Your task to perform on an android device: find photos in the google photos app Image 0: 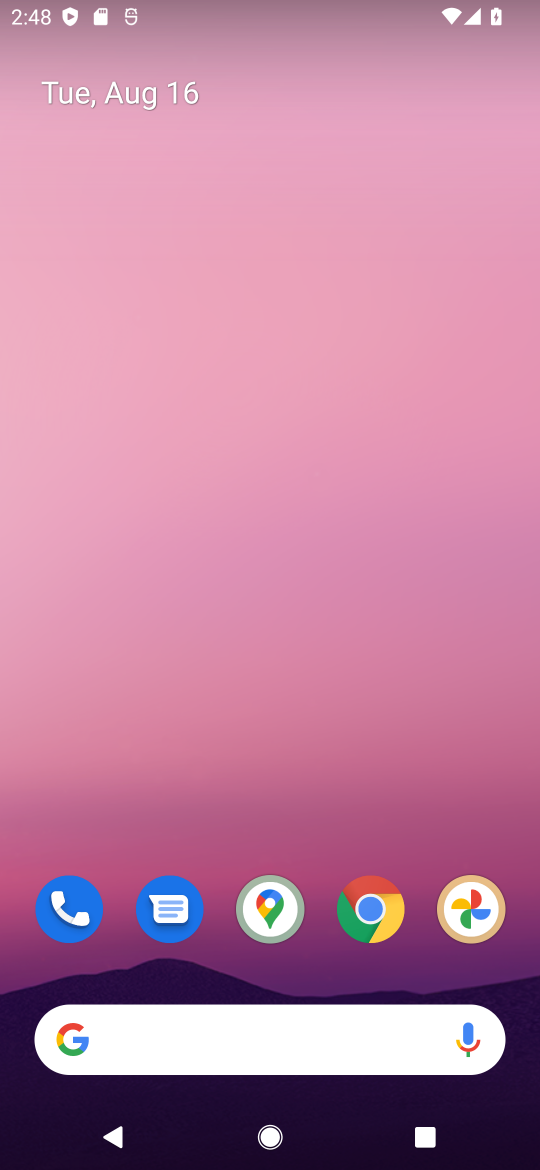
Step 0: click (469, 909)
Your task to perform on an android device: find photos in the google photos app Image 1: 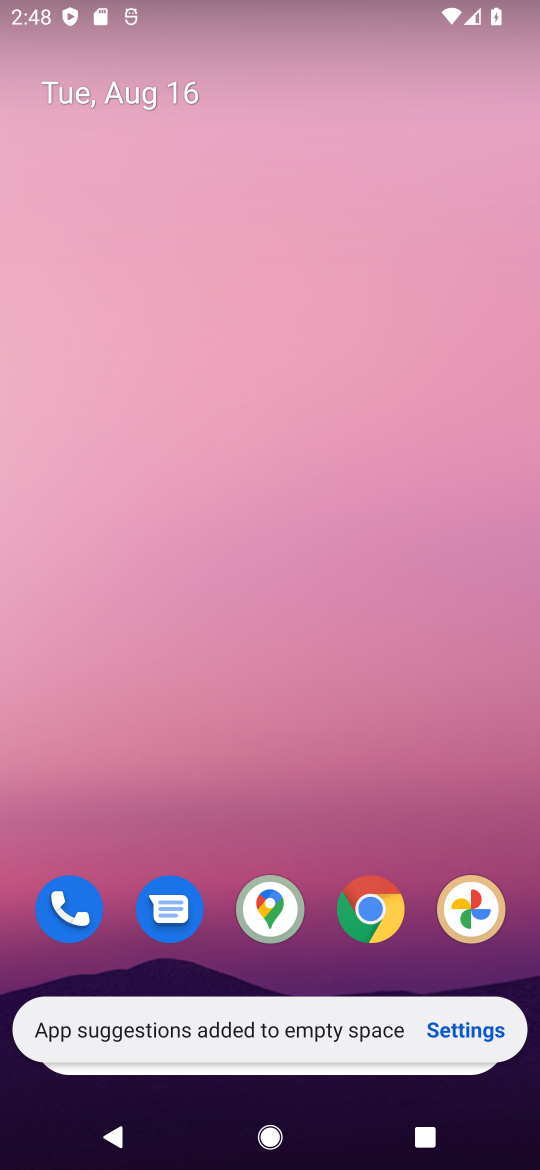
Step 1: click (469, 929)
Your task to perform on an android device: find photos in the google photos app Image 2: 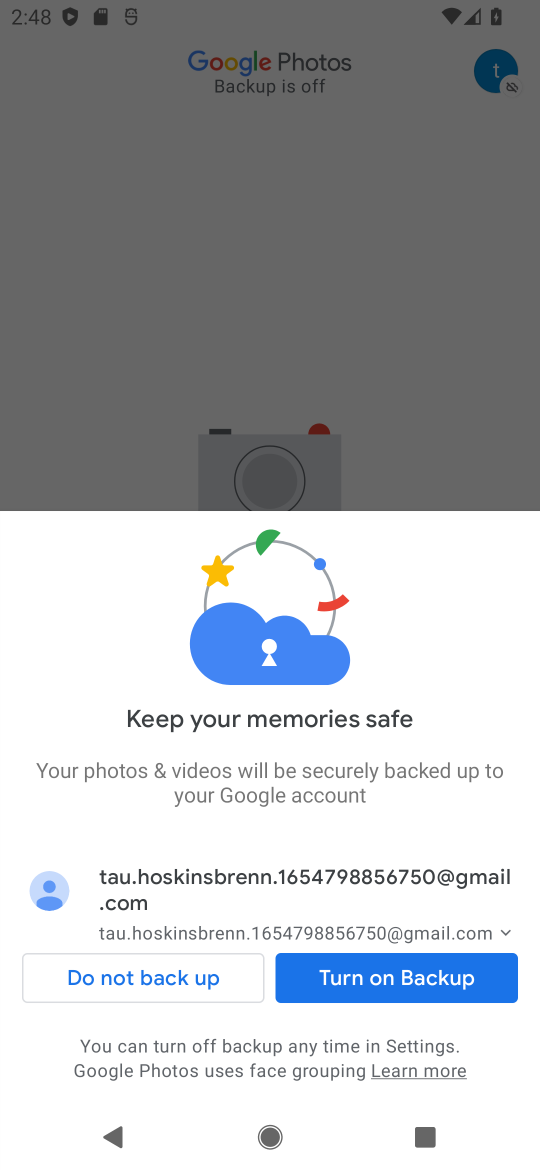
Step 2: click (466, 979)
Your task to perform on an android device: find photos in the google photos app Image 3: 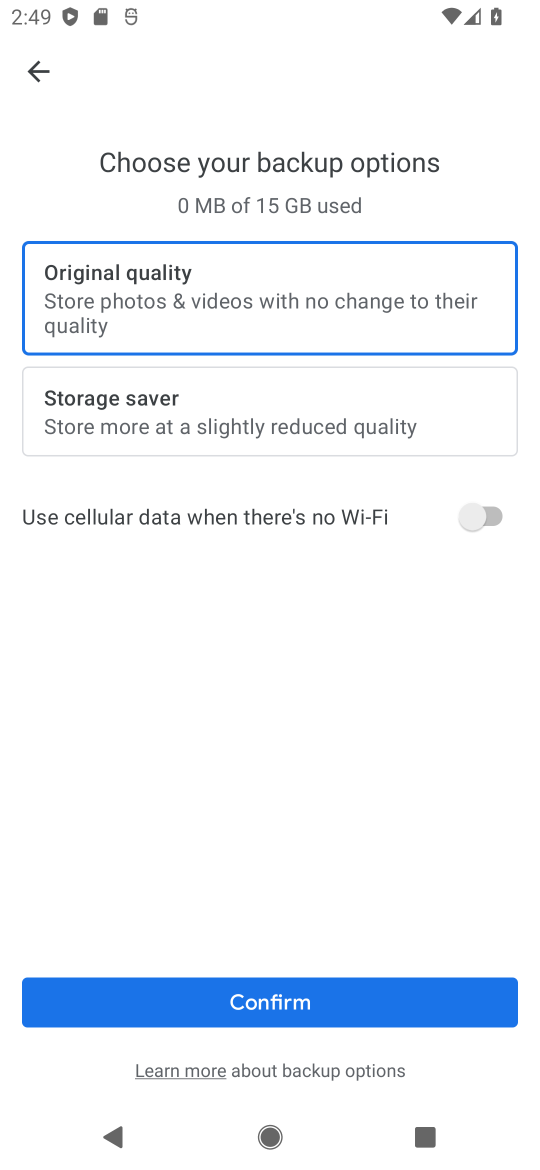
Step 3: click (248, 994)
Your task to perform on an android device: find photos in the google photos app Image 4: 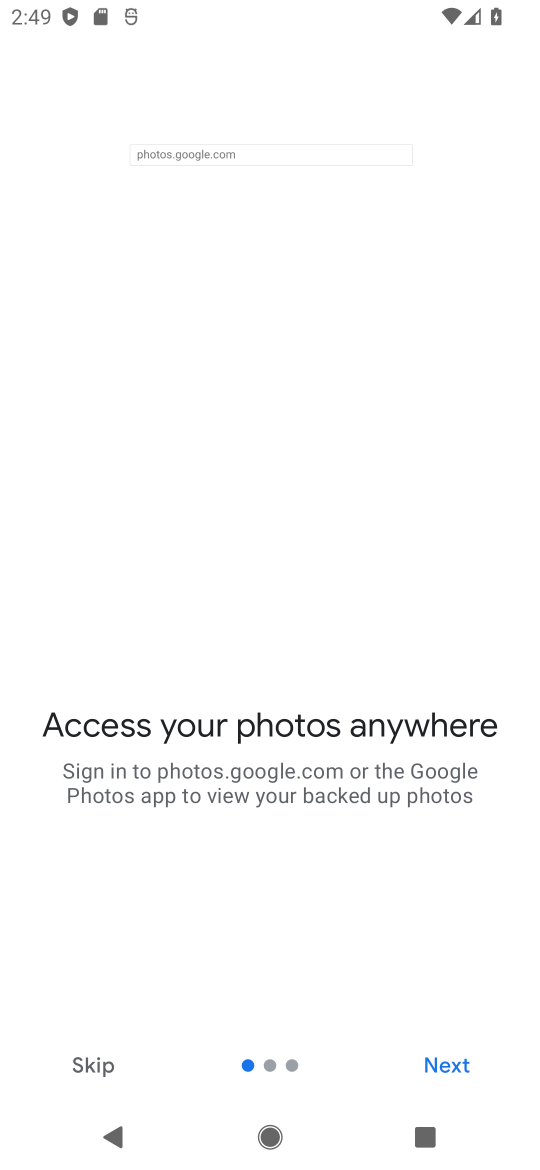
Step 4: click (453, 1063)
Your task to perform on an android device: find photos in the google photos app Image 5: 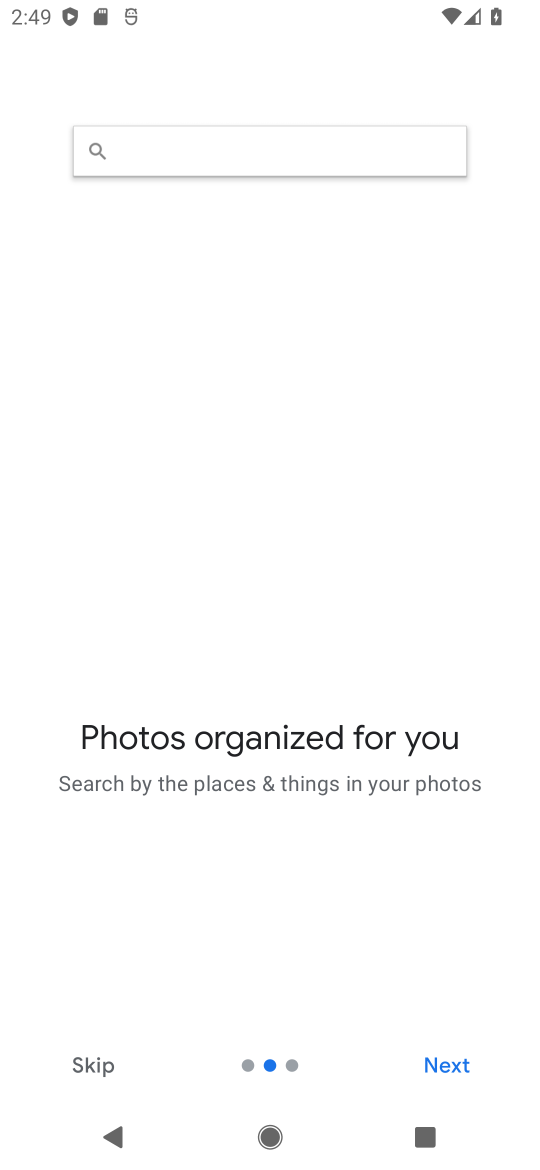
Step 5: click (453, 1063)
Your task to perform on an android device: find photos in the google photos app Image 6: 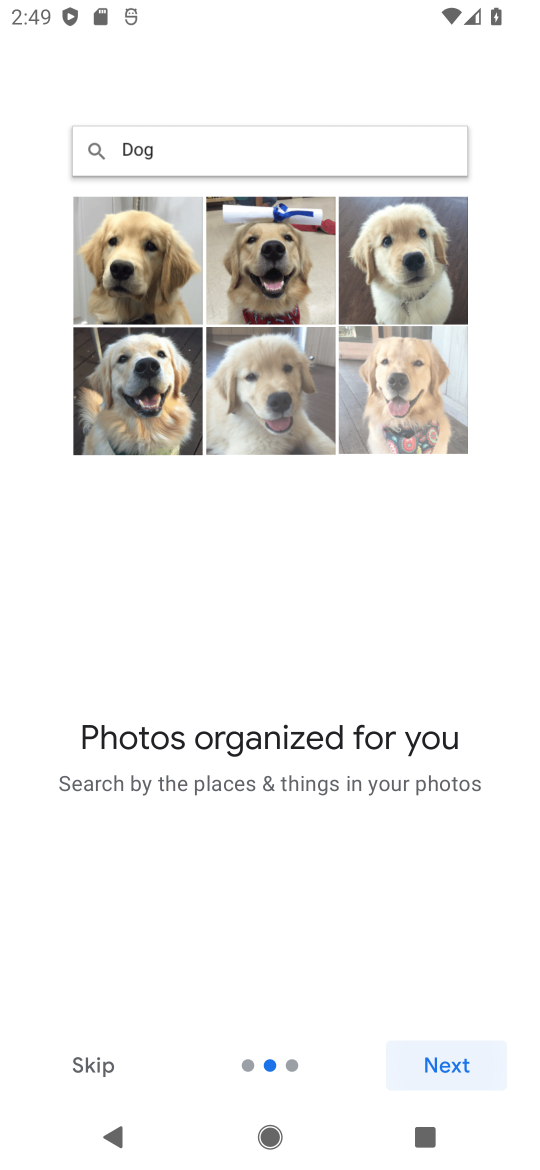
Step 6: click (453, 1063)
Your task to perform on an android device: find photos in the google photos app Image 7: 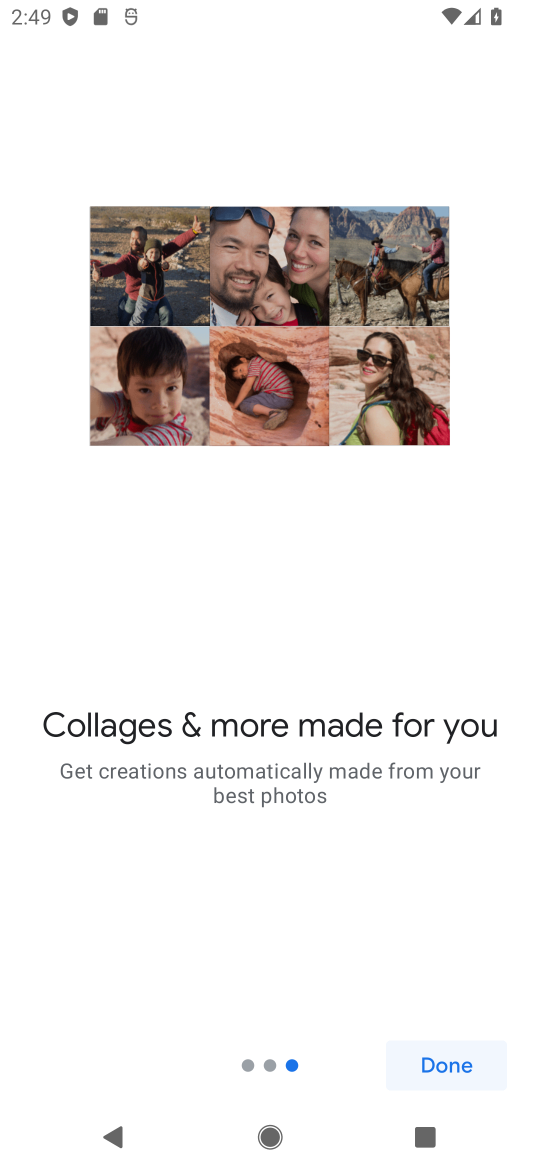
Step 7: click (453, 1063)
Your task to perform on an android device: find photos in the google photos app Image 8: 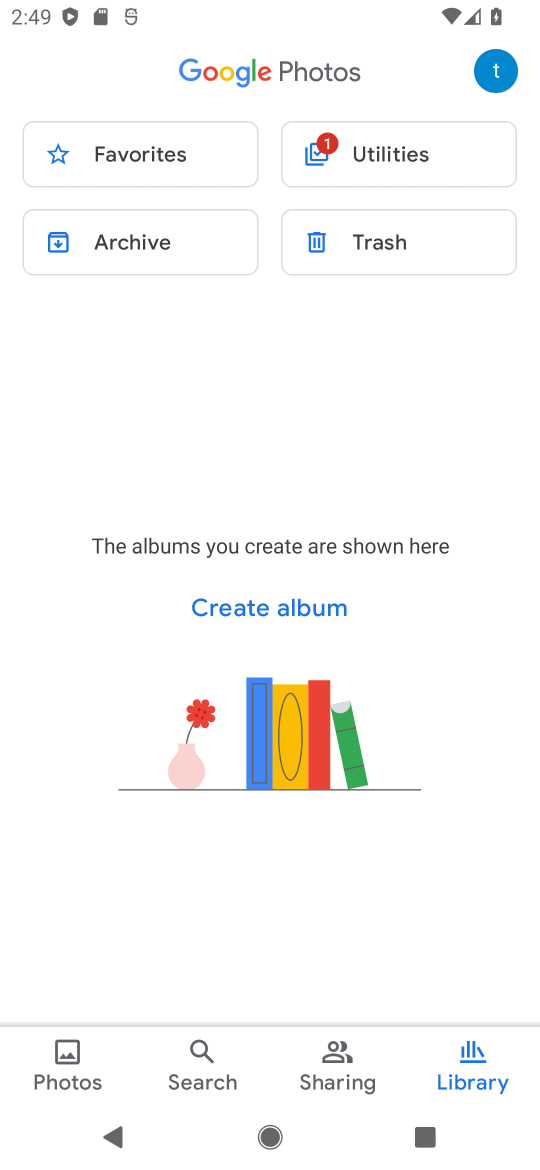
Step 8: click (42, 1060)
Your task to perform on an android device: find photos in the google photos app Image 9: 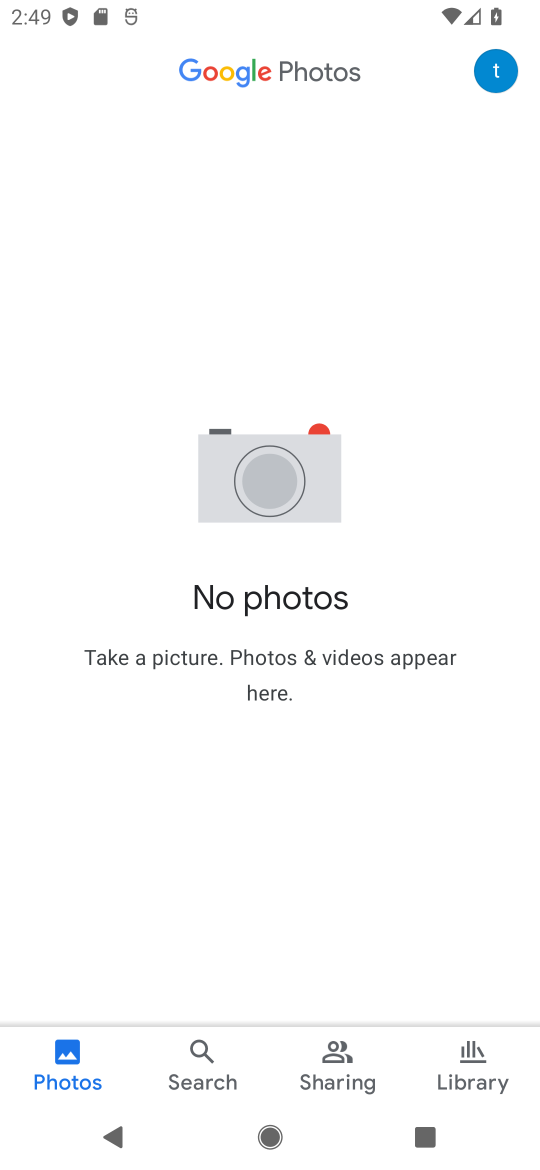
Step 9: task complete